Your task to perform on an android device: What's the weather today? Image 0: 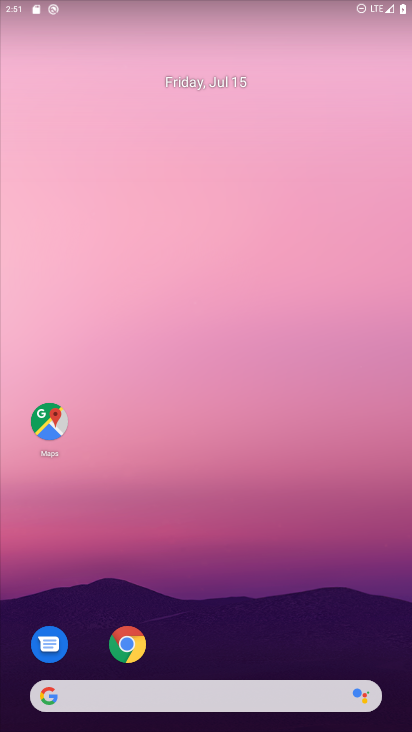
Step 0: click (210, 698)
Your task to perform on an android device: What's the weather today? Image 1: 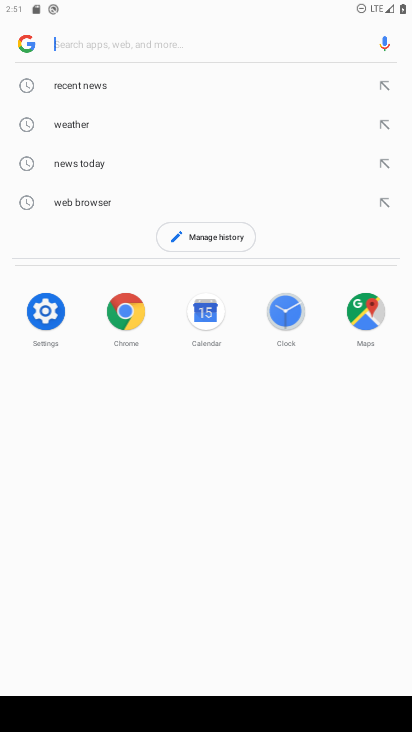
Step 1: click (64, 122)
Your task to perform on an android device: What's the weather today? Image 2: 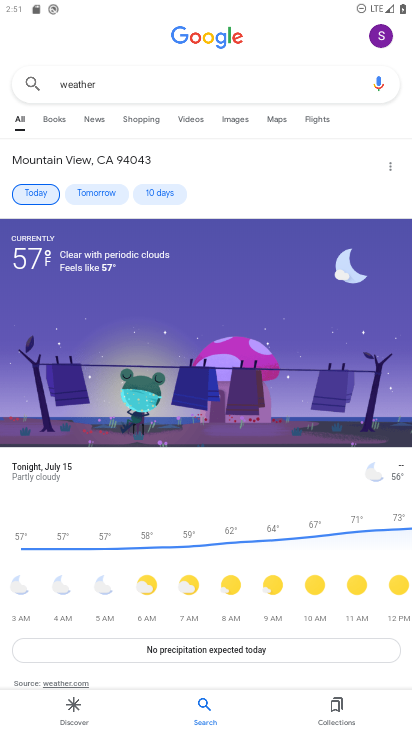
Step 2: task complete